Your task to perform on an android device: change the clock style Image 0: 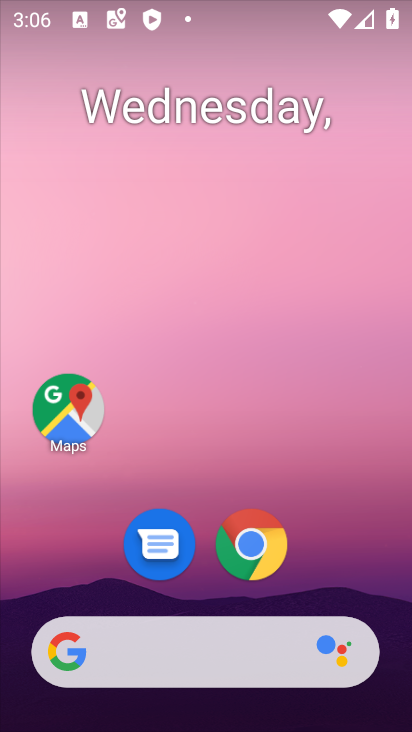
Step 0: drag from (396, 632) to (330, 110)
Your task to perform on an android device: change the clock style Image 1: 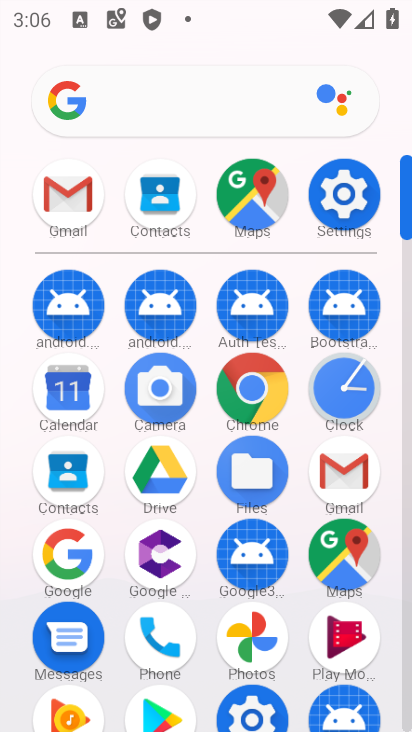
Step 1: click (407, 706)
Your task to perform on an android device: change the clock style Image 2: 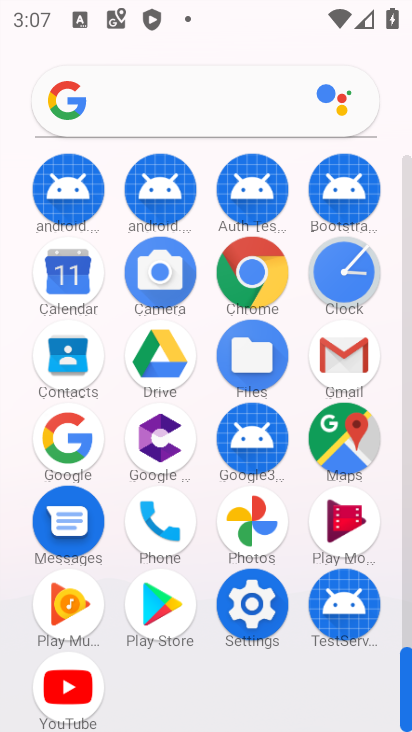
Step 2: click (337, 271)
Your task to perform on an android device: change the clock style Image 3: 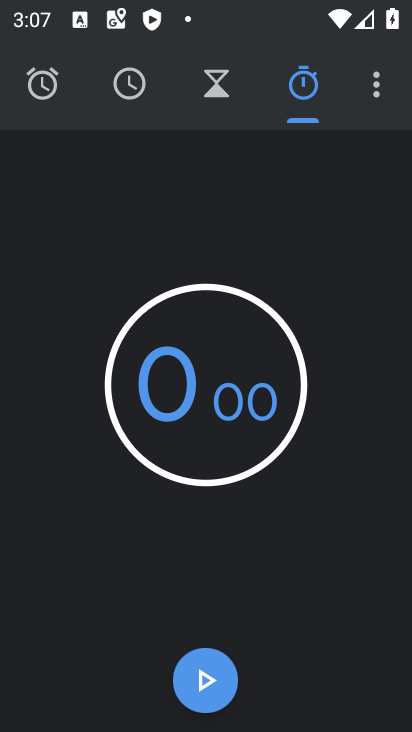
Step 3: click (373, 91)
Your task to perform on an android device: change the clock style Image 4: 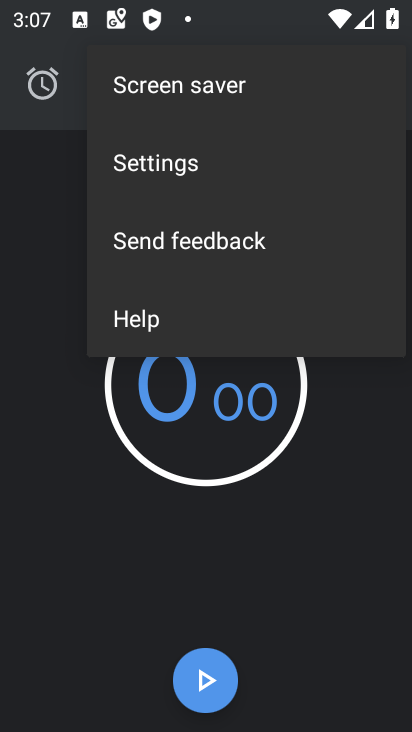
Step 4: click (142, 175)
Your task to perform on an android device: change the clock style Image 5: 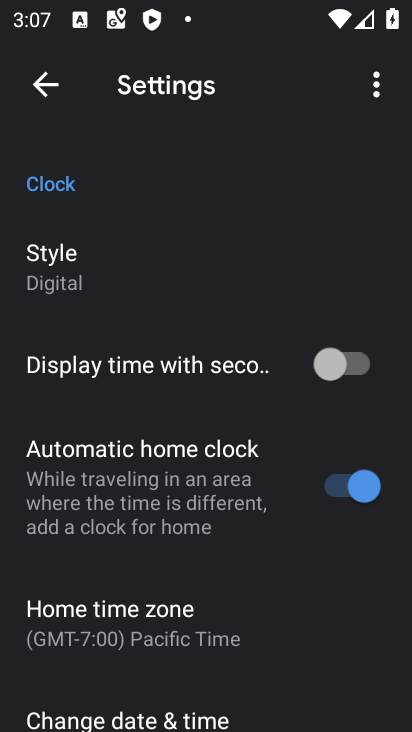
Step 5: click (43, 279)
Your task to perform on an android device: change the clock style Image 6: 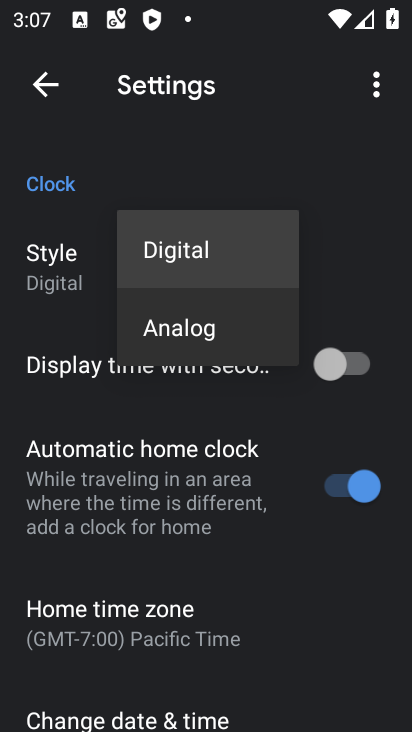
Step 6: click (166, 332)
Your task to perform on an android device: change the clock style Image 7: 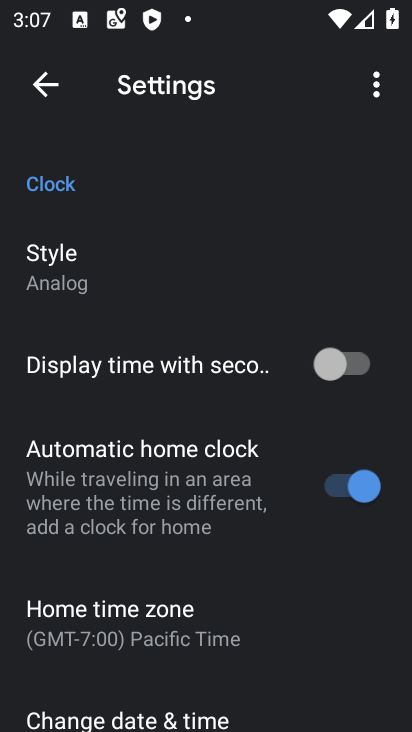
Step 7: task complete